Your task to perform on an android device: check google app version Image 0: 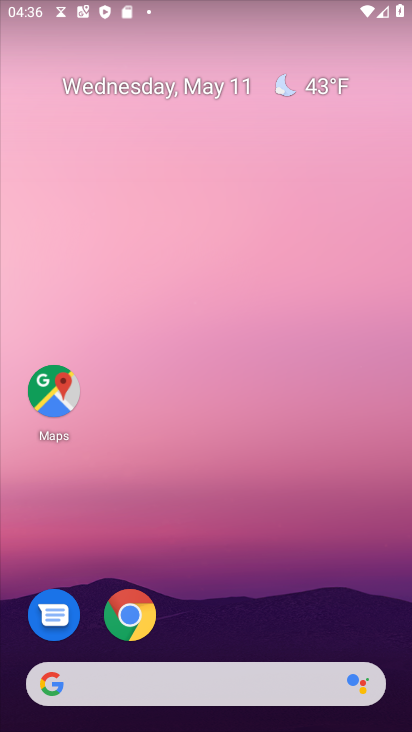
Step 0: drag from (266, 526) to (195, 0)
Your task to perform on an android device: check google app version Image 1: 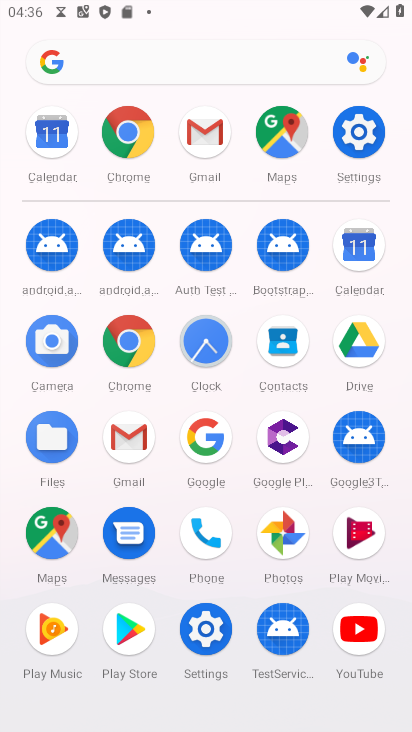
Step 1: drag from (14, 569) to (10, 312)
Your task to perform on an android device: check google app version Image 2: 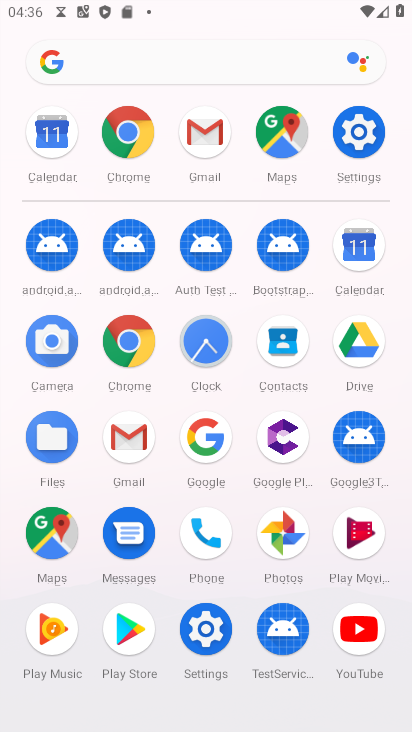
Step 2: click (206, 437)
Your task to perform on an android device: check google app version Image 3: 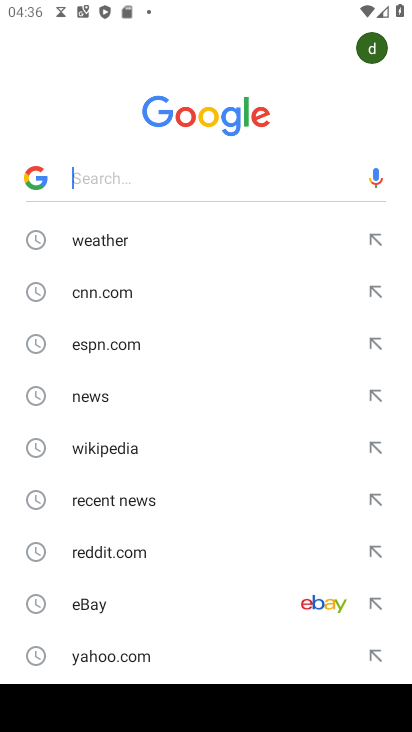
Step 3: press back button
Your task to perform on an android device: check google app version Image 4: 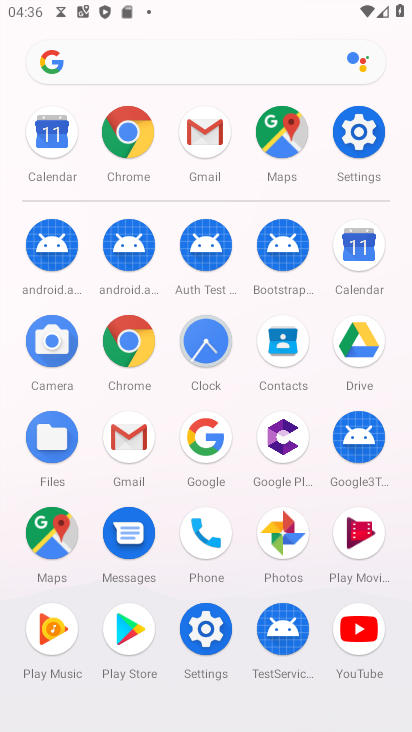
Step 4: click (207, 430)
Your task to perform on an android device: check google app version Image 5: 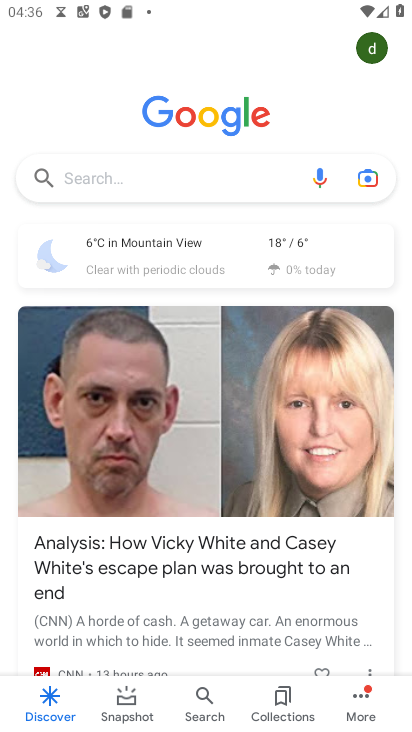
Step 5: click (367, 697)
Your task to perform on an android device: check google app version Image 6: 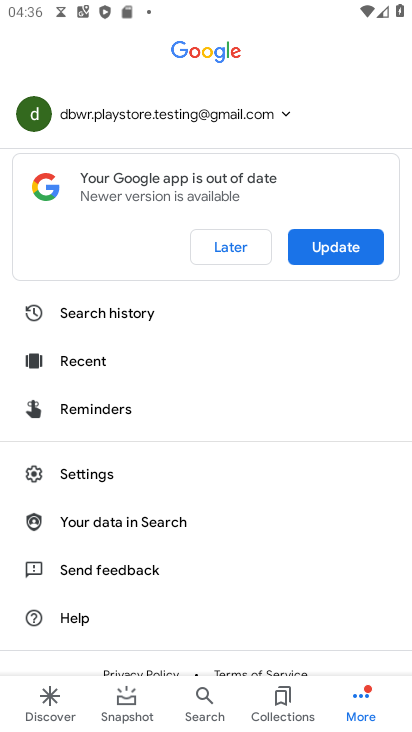
Step 6: click (97, 469)
Your task to perform on an android device: check google app version Image 7: 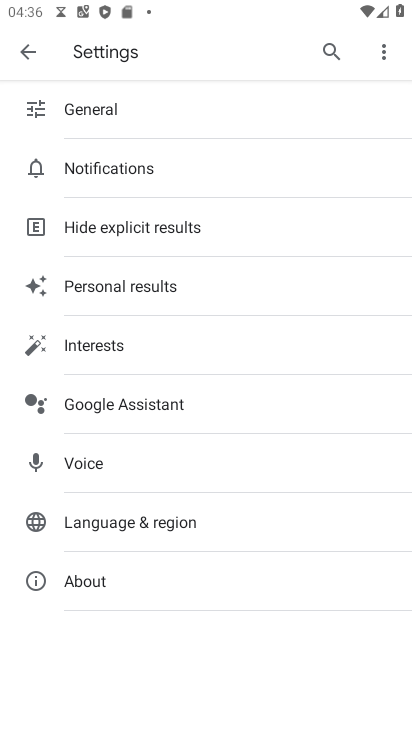
Step 7: click (101, 587)
Your task to perform on an android device: check google app version Image 8: 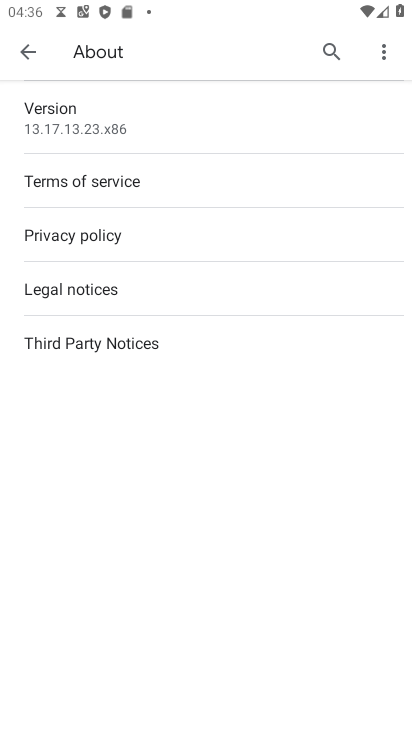
Step 8: task complete